Your task to perform on an android device: empty trash in the gmail app Image 0: 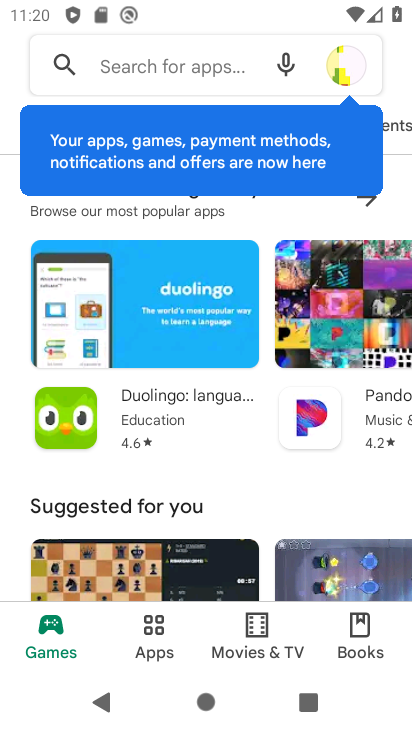
Step 0: press home button
Your task to perform on an android device: empty trash in the gmail app Image 1: 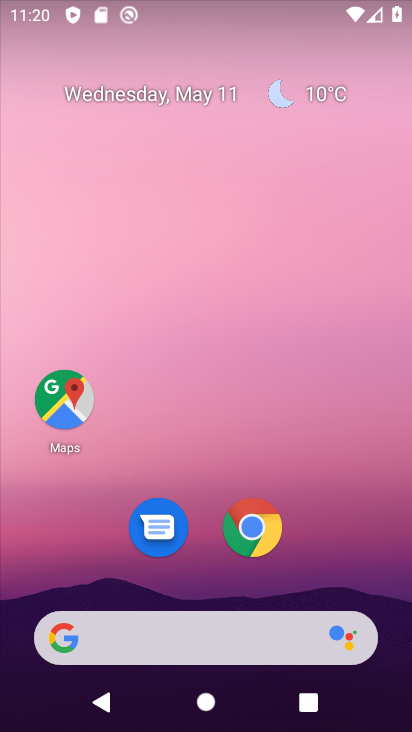
Step 1: drag from (225, 566) to (334, 6)
Your task to perform on an android device: empty trash in the gmail app Image 2: 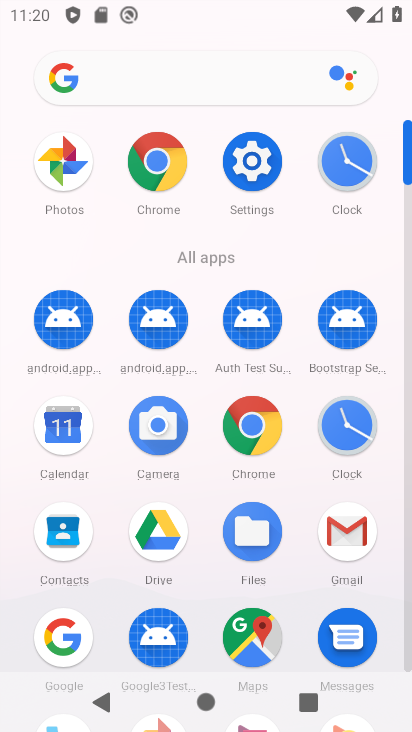
Step 2: click (358, 539)
Your task to perform on an android device: empty trash in the gmail app Image 3: 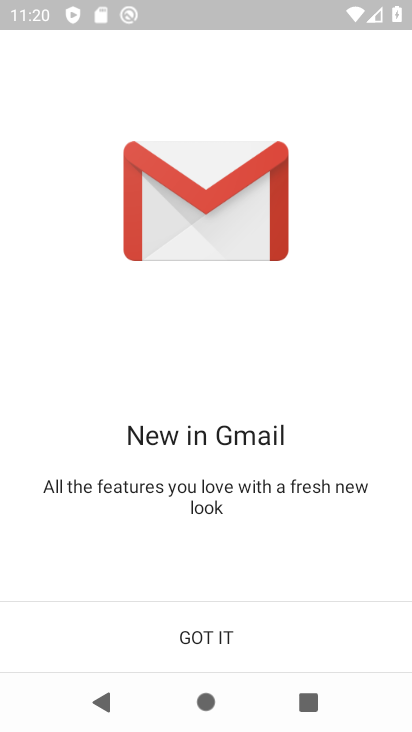
Step 3: click (248, 627)
Your task to perform on an android device: empty trash in the gmail app Image 4: 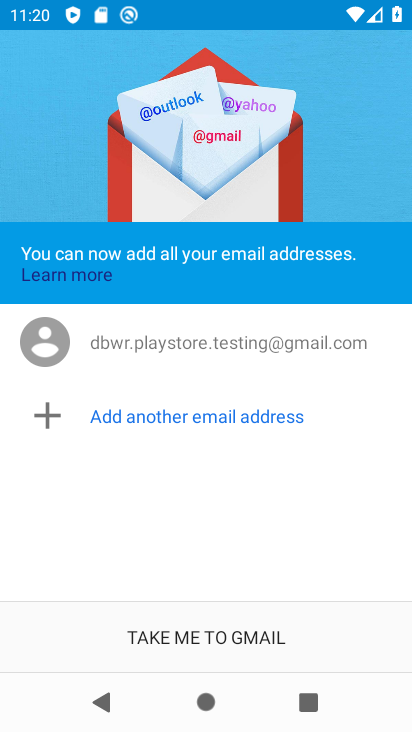
Step 4: click (222, 648)
Your task to perform on an android device: empty trash in the gmail app Image 5: 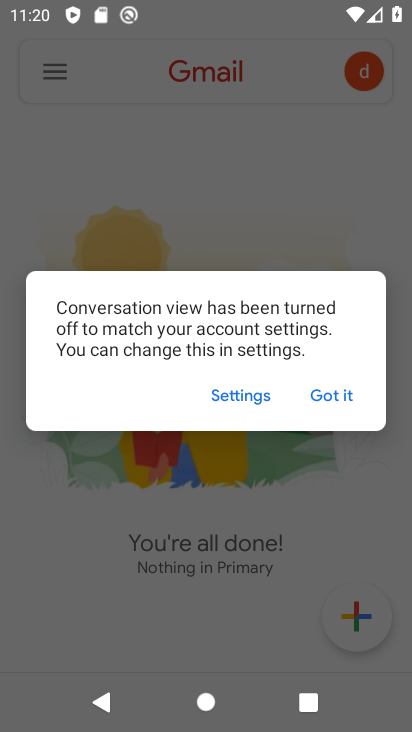
Step 5: click (334, 395)
Your task to perform on an android device: empty trash in the gmail app Image 6: 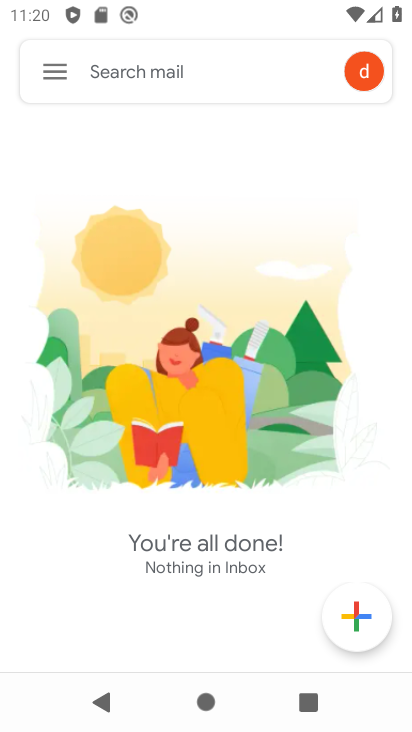
Step 6: click (33, 61)
Your task to perform on an android device: empty trash in the gmail app Image 7: 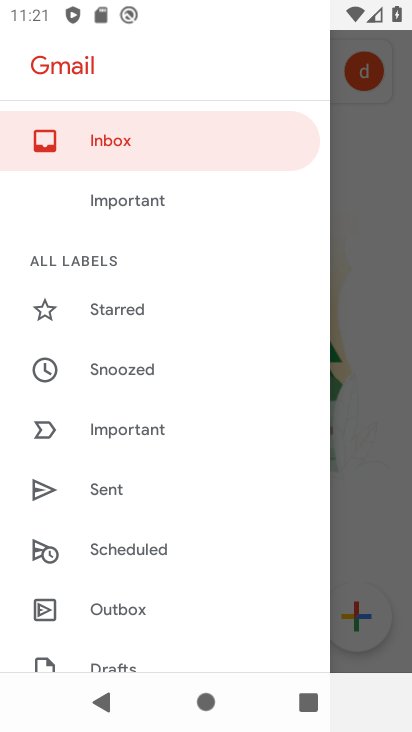
Step 7: drag from (116, 508) to (222, 88)
Your task to perform on an android device: empty trash in the gmail app Image 8: 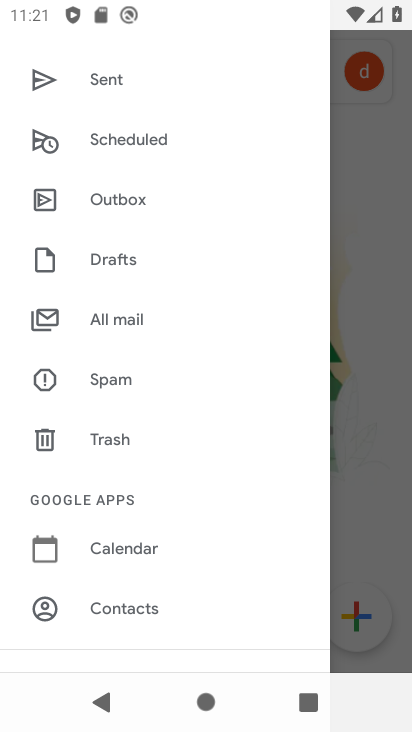
Step 8: click (136, 444)
Your task to perform on an android device: empty trash in the gmail app Image 9: 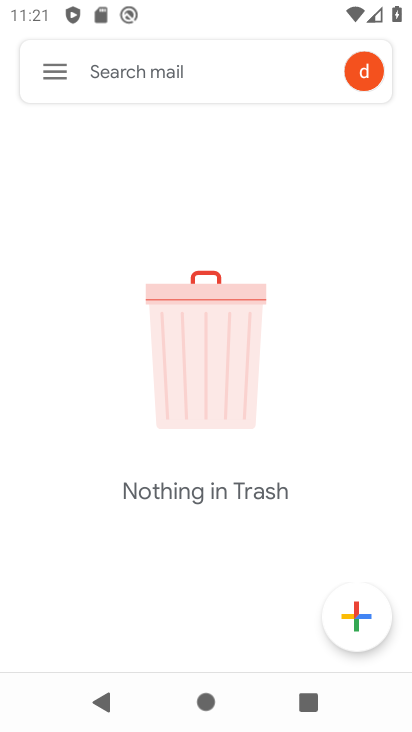
Step 9: task complete